Your task to perform on an android device: Open Reddit.com Image 0: 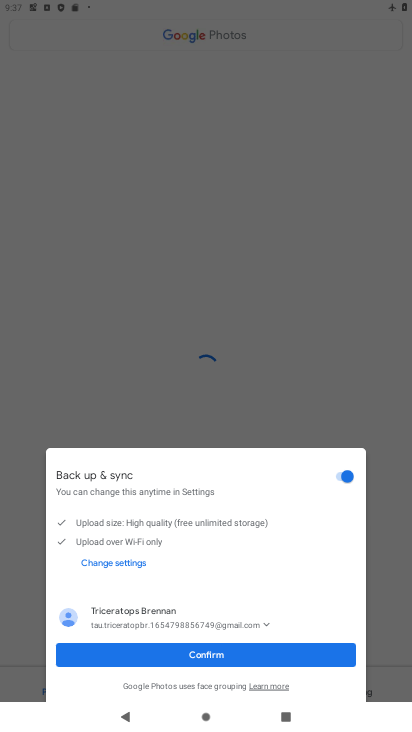
Step 0: press home button
Your task to perform on an android device: Open Reddit.com Image 1: 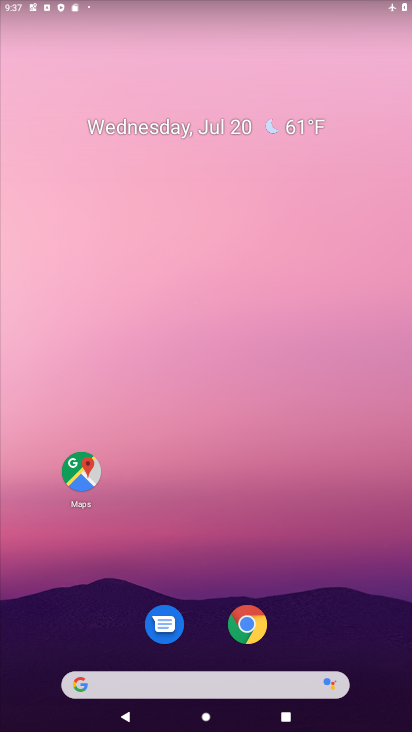
Step 1: click (247, 609)
Your task to perform on an android device: Open Reddit.com Image 2: 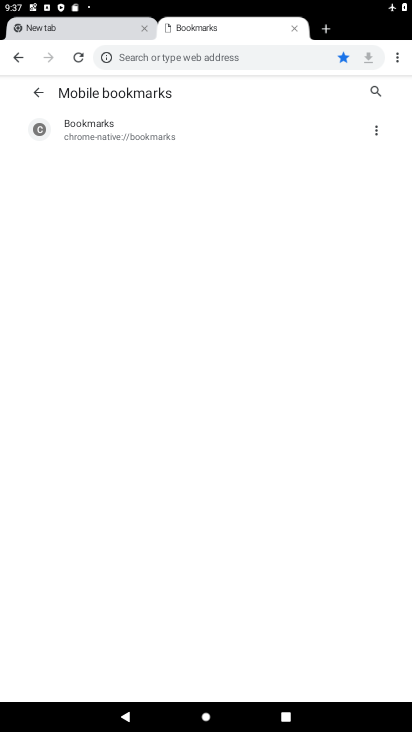
Step 2: click (327, 27)
Your task to perform on an android device: Open Reddit.com Image 3: 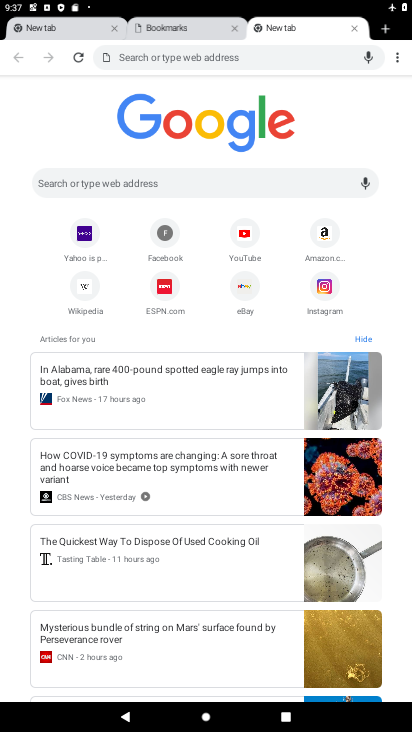
Step 3: click (146, 182)
Your task to perform on an android device: Open Reddit.com Image 4: 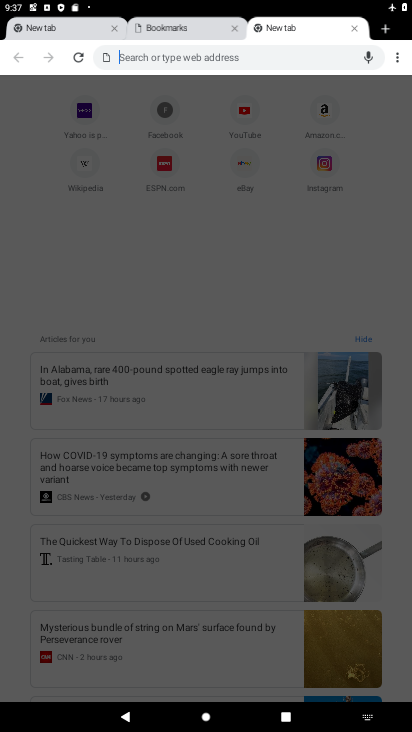
Step 4: type "Reddit.com"
Your task to perform on an android device: Open Reddit.com Image 5: 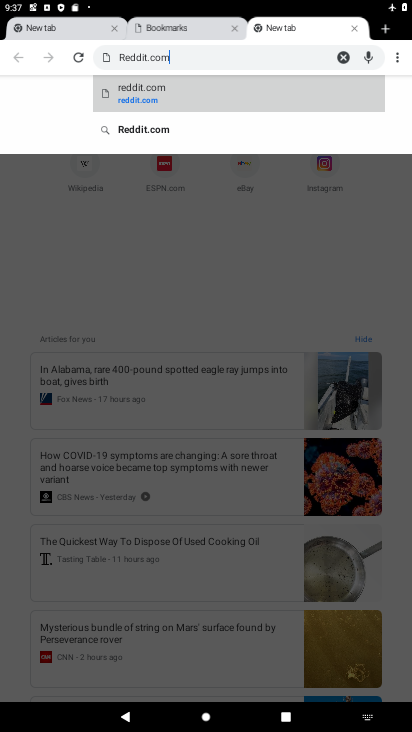
Step 5: click (222, 92)
Your task to perform on an android device: Open Reddit.com Image 6: 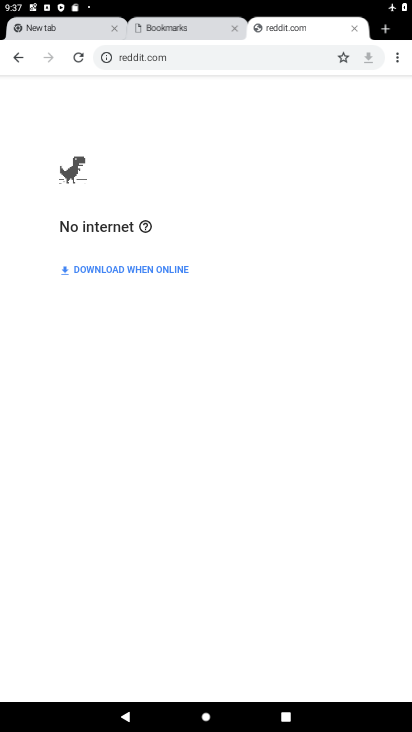
Step 6: task complete